Your task to perform on an android device: turn on javascript in the chrome app Image 0: 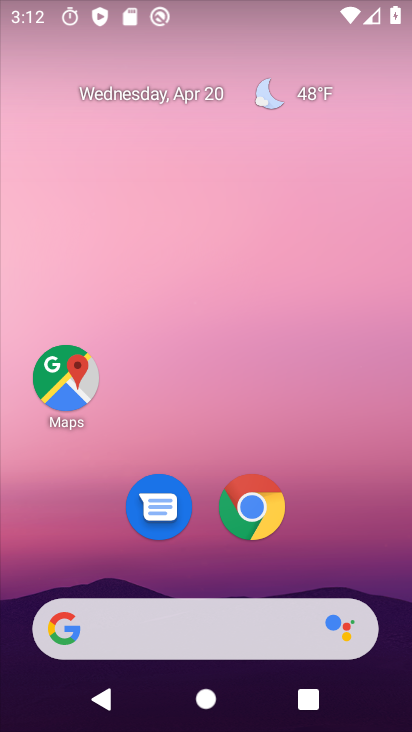
Step 0: click (260, 485)
Your task to perform on an android device: turn on javascript in the chrome app Image 1: 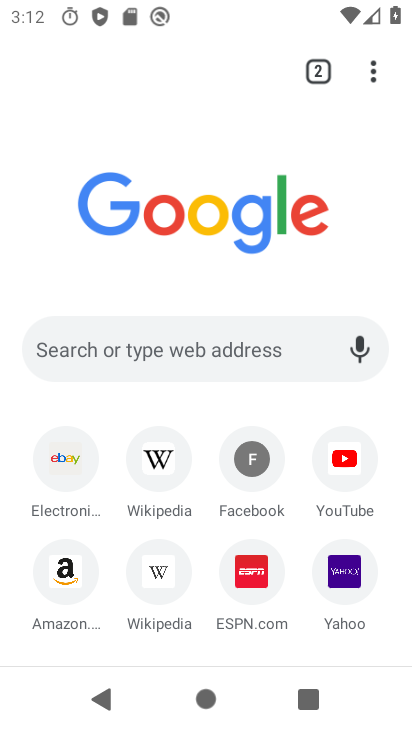
Step 1: click (374, 78)
Your task to perform on an android device: turn on javascript in the chrome app Image 2: 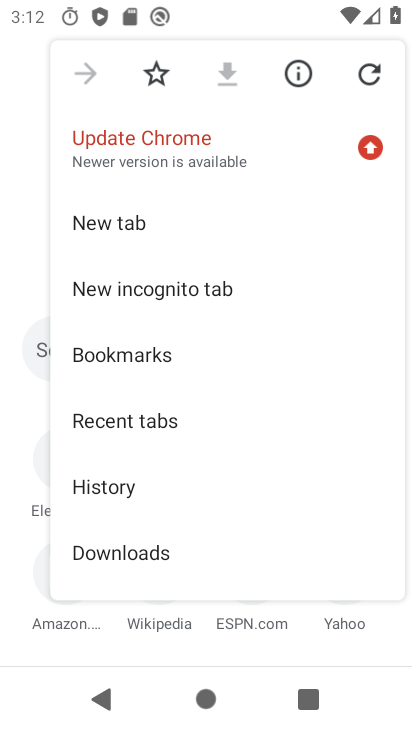
Step 2: drag from (116, 493) to (126, 28)
Your task to perform on an android device: turn on javascript in the chrome app Image 3: 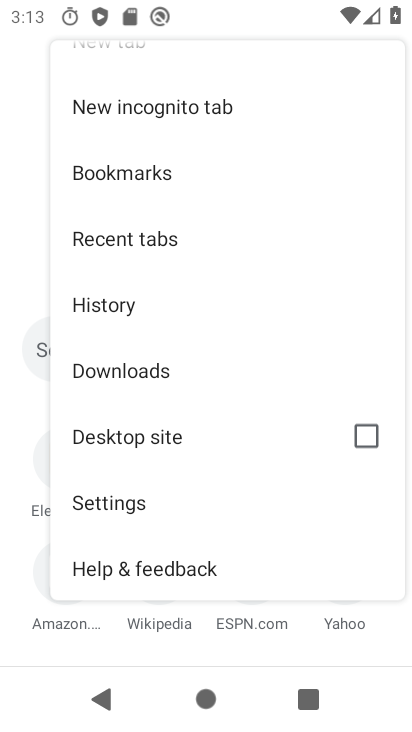
Step 3: click (103, 499)
Your task to perform on an android device: turn on javascript in the chrome app Image 4: 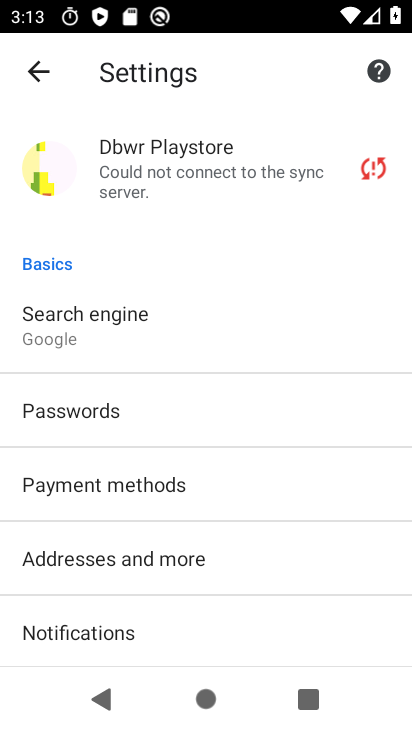
Step 4: drag from (216, 583) to (195, 211)
Your task to perform on an android device: turn on javascript in the chrome app Image 5: 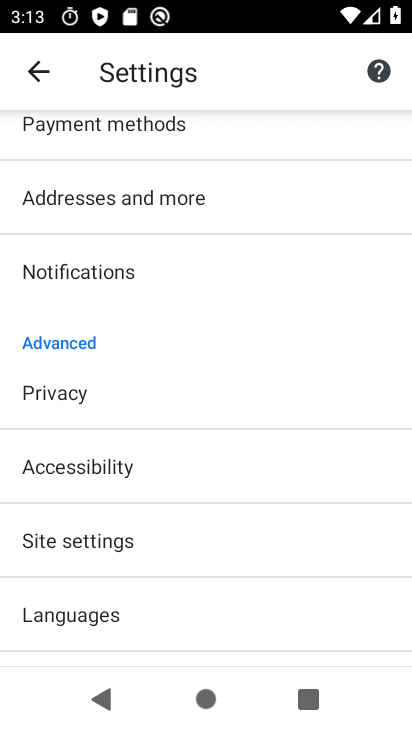
Step 5: click (110, 534)
Your task to perform on an android device: turn on javascript in the chrome app Image 6: 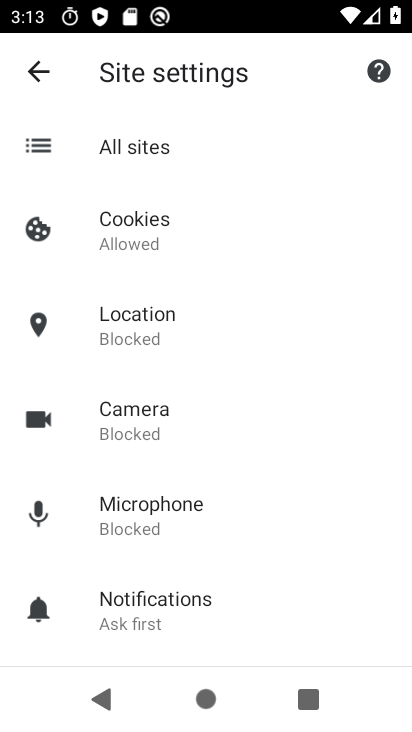
Step 6: drag from (198, 520) to (163, 150)
Your task to perform on an android device: turn on javascript in the chrome app Image 7: 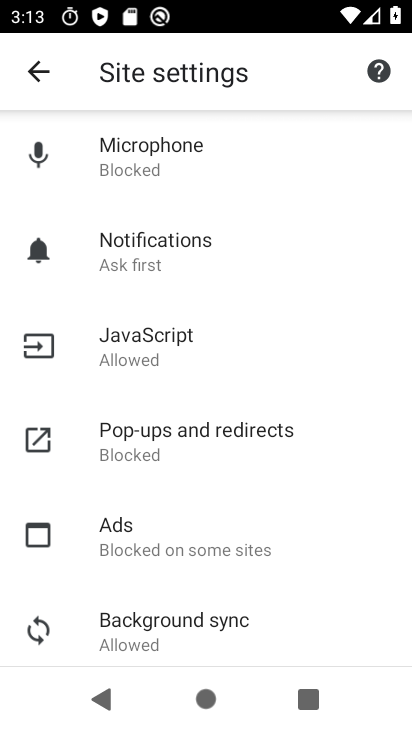
Step 7: click (156, 346)
Your task to perform on an android device: turn on javascript in the chrome app Image 8: 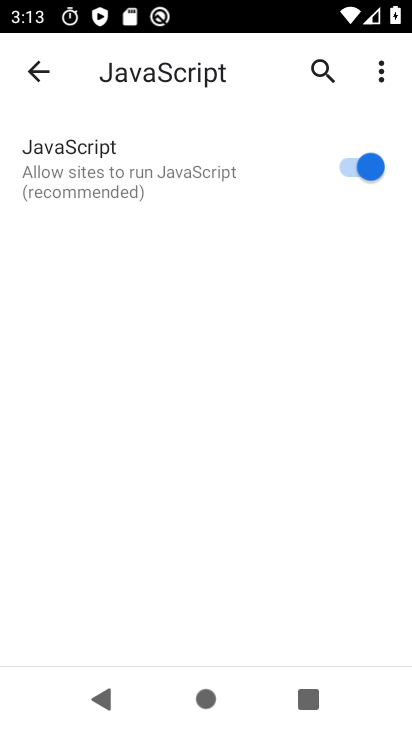
Step 8: task complete